Your task to perform on an android device: turn off picture-in-picture Image 0: 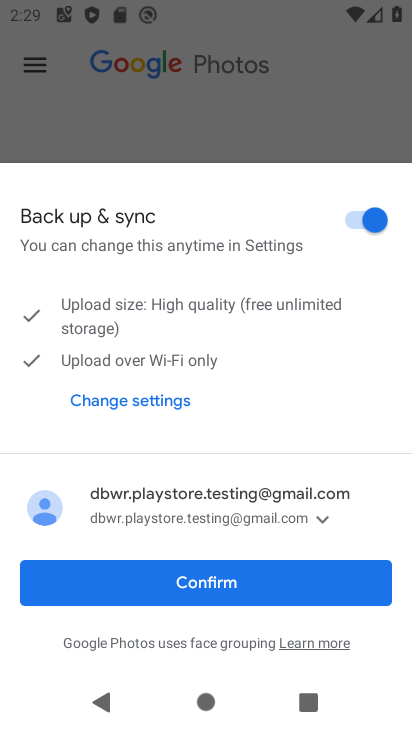
Step 0: press home button
Your task to perform on an android device: turn off picture-in-picture Image 1: 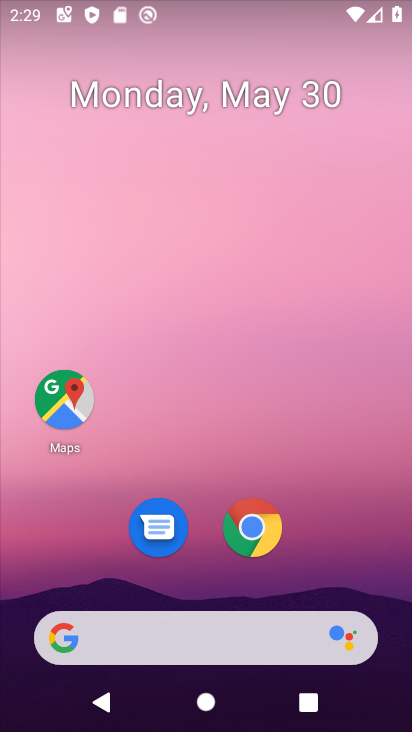
Step 1: drag from (315, 432) to (302, 19)
Your task to perform on an android device: turn off picture-in-picture Image 2: 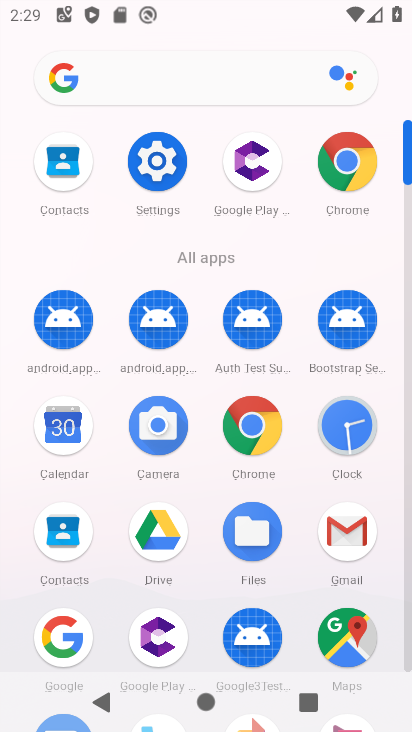
Step 2: click (353, 170)
Your task to perform on an android device: turn off picture-in-picture Image 3: 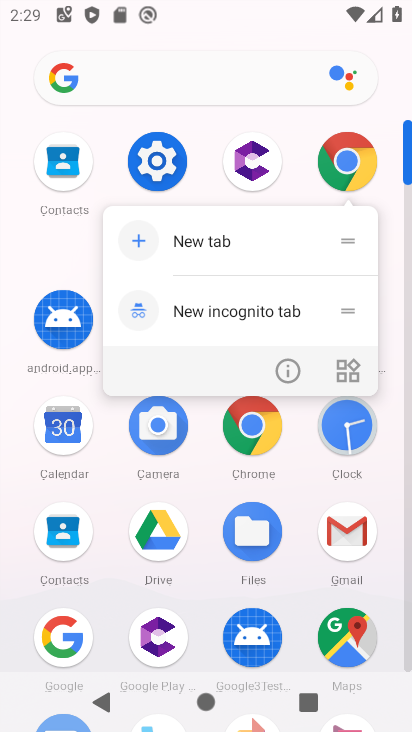
Step 3: click (286, 366)
Your task to perform on an android device: turn off picture-in-picture Image 4: 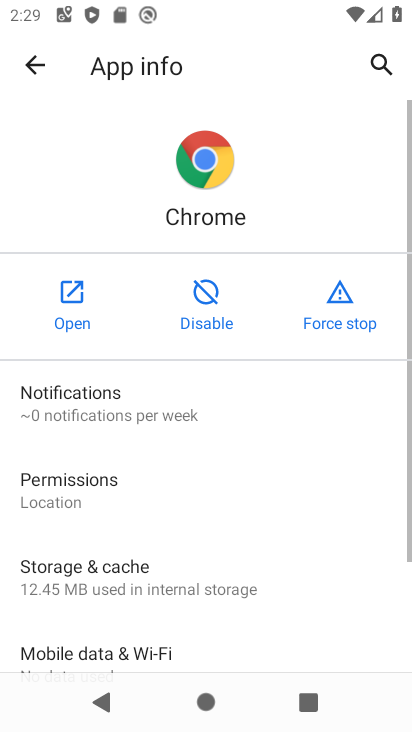
Step 4: drag from (235, 580) to (275, 154)
Your task to perform on an android device: turn off picture-in-picture Image 5: 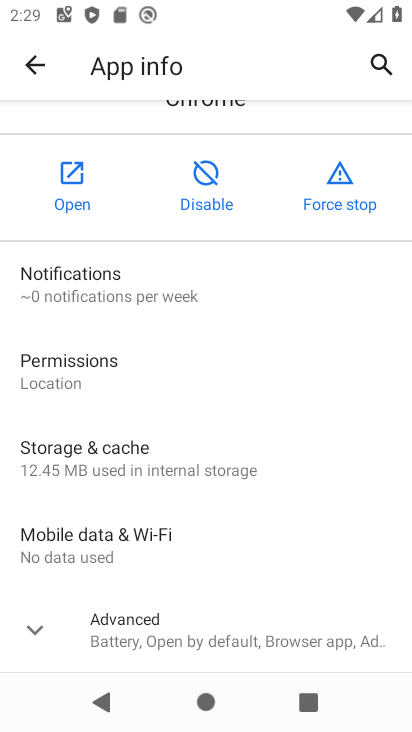
Step 5: click (169, 629)
Your task to perform on an android device: turn off picture-in-picture Image 6: 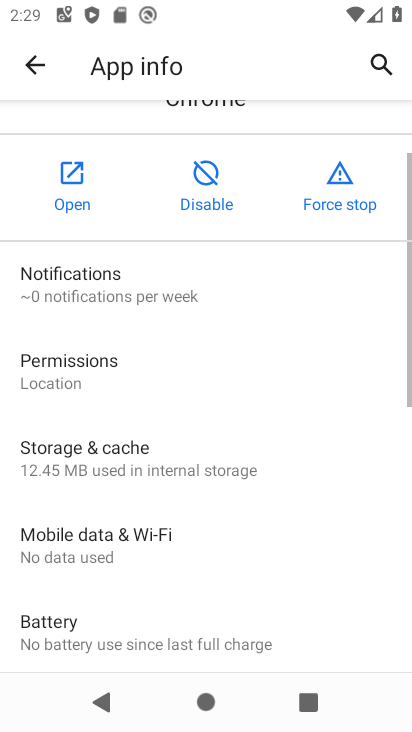
Step 6: drag from (295, 628) to (308, 239)
Your task to perform on an android device: turn off picture-in-picture Image 7: 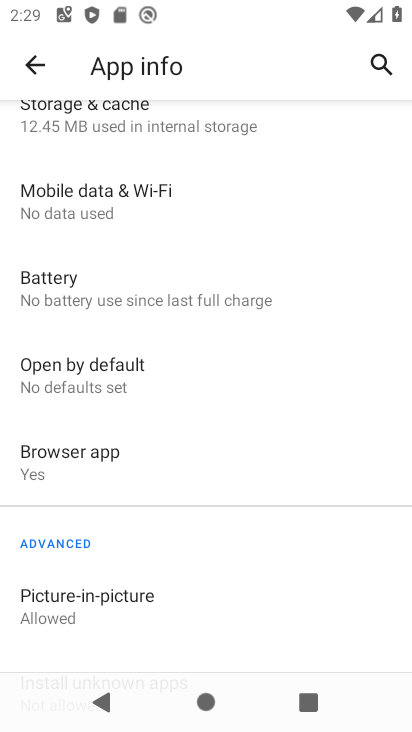
Step 7: click (117, 591)
Your task to perform on an android device: turn off picture-in-picture Image 8: 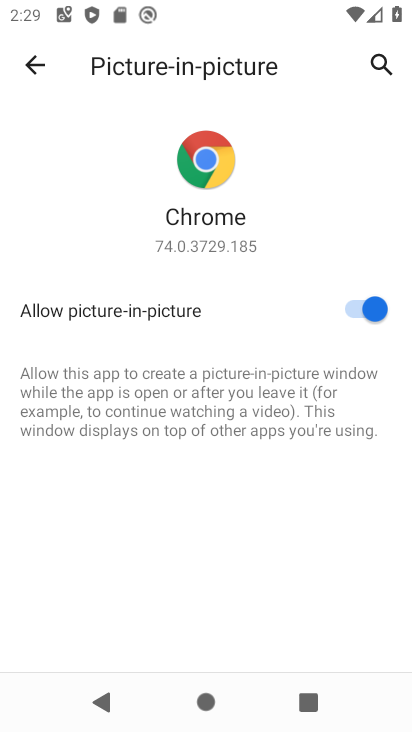
Step 8: click (357, 308)
Your task to perform on an android device: turn off picture-in-picture Image 9: 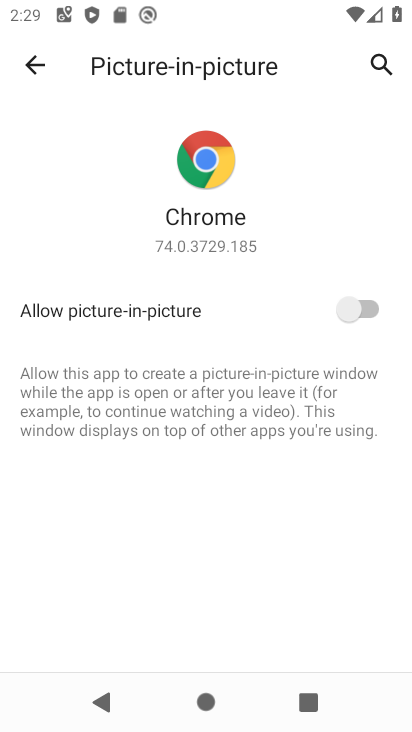
Step 9: task complete